Your task to perform on an android device: turn off data saver in the chrome app Image 0: 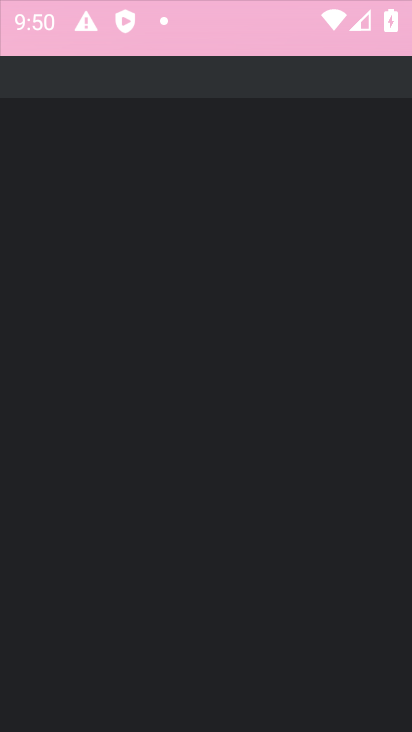
Step 0: press home button
Your task to perform on an android device: turn off data saver in the chrome app Image 1: 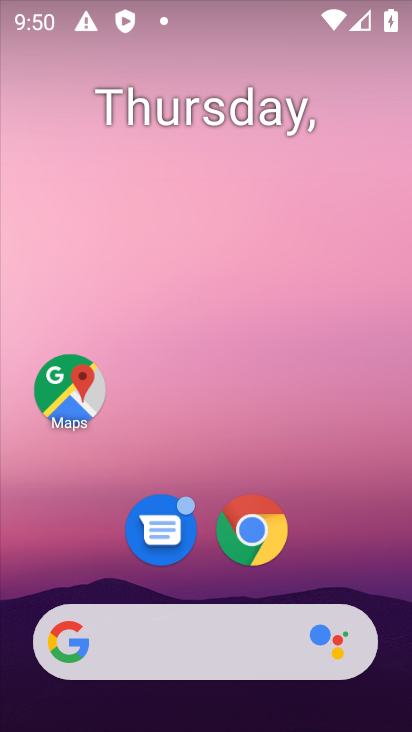
Step 1: click (231, 519)
Your task to perform on an android device: turn off data saver in the chrome app Image 2: 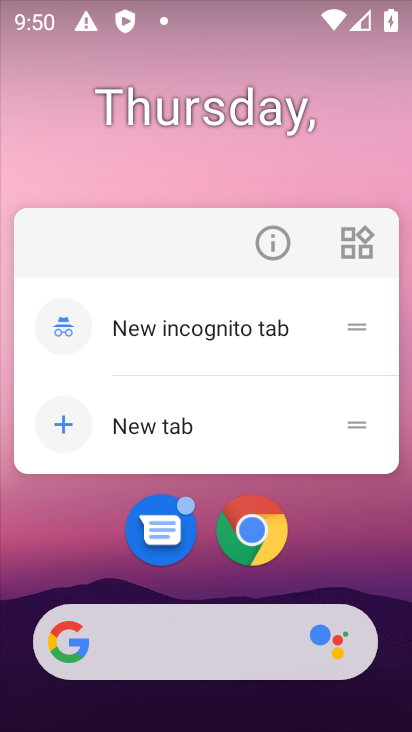
Step 2: click (231, 519)
Your task to perform on an android device: turn off data saver in the chrome app Image 3: 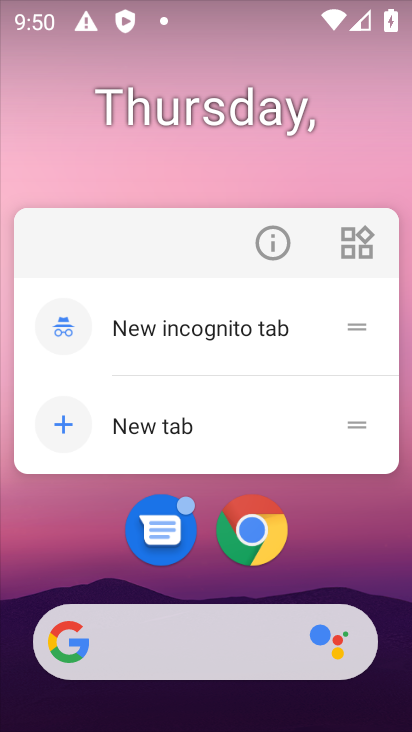
Step 3: click (259, 528)
Your task to perform on an android device: turn off data saver in the chrome app Image 4: 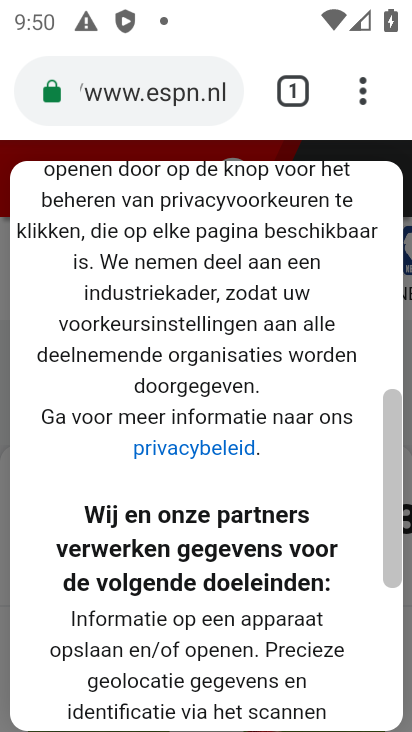
Step 4: drag from (371, 83) to (195, 546)
Your task to perform on an android device: turn off data saver in the chrome app Image 5: 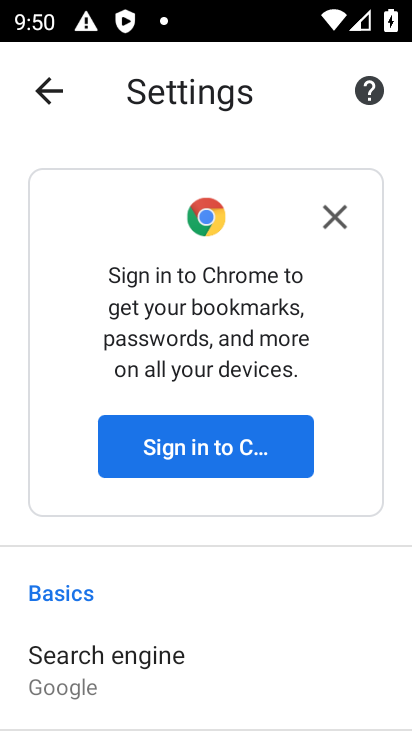
Step 5: click (339, 211)
Your task to perform on an android device: turn off data saver in the chrome app Image 6: 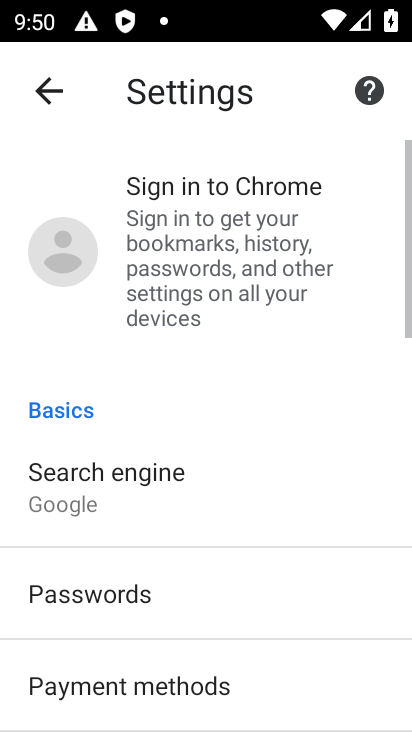
Step 6: drag from (300, 531) to (324, 116)
Your task to perform on an android device: turn off data saver in the chrome app Image 7: 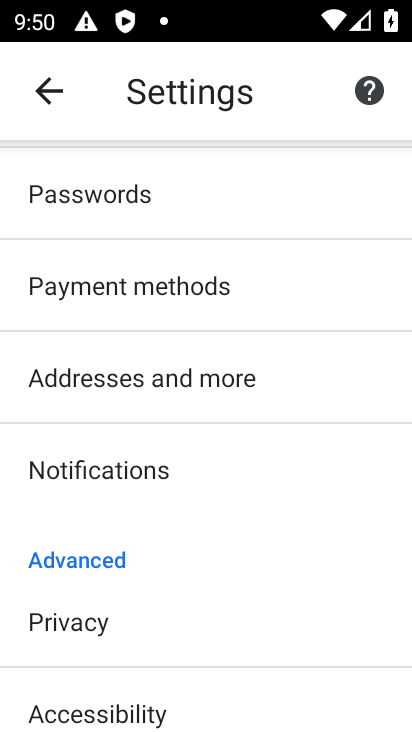
Step 7: drag from (243, 650) to (283, 159)
Your task to perform on an android device: turn off data saver in the chrome app Image 8: 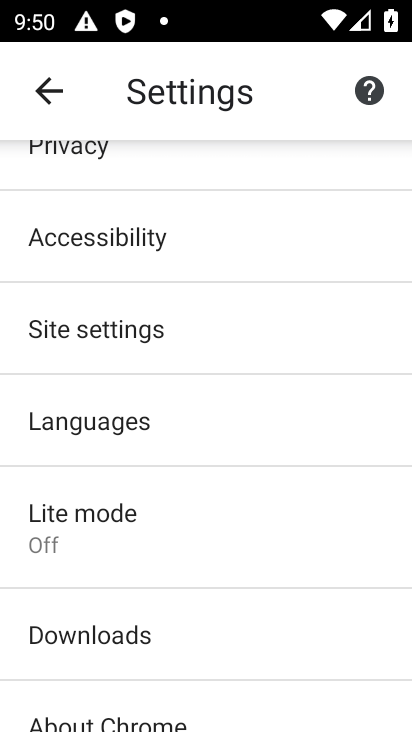
Step 8: click (84, 536)
Your task to perform on an android device: turn off data saver in the chrome app Image 9: 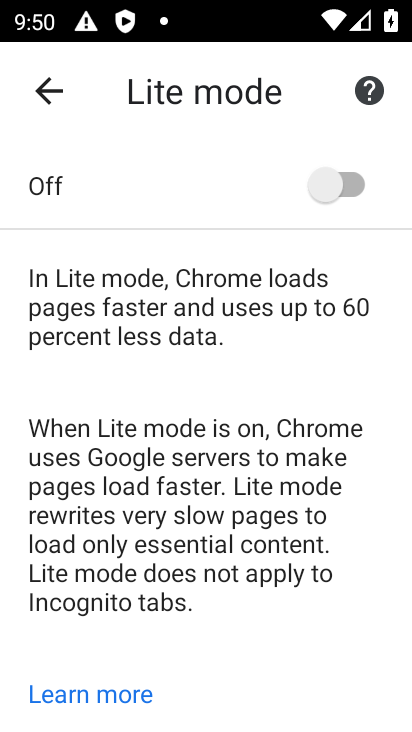
Step 9: task complete